Your task to perform on an android device: Search for asus zenbook on newegg.com, select the first entry, add it to the cart, then select checkout. Image 0: 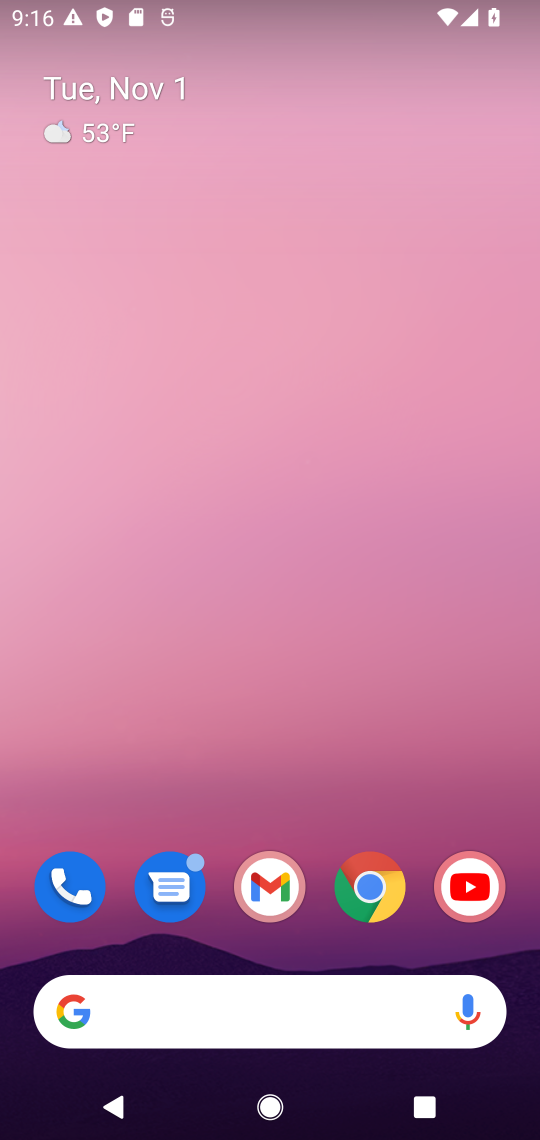
Step 0: click (346, 388)
Your task to perform on an android device: Search for asus zenbook on newegg.com, select the first entry, add it to the cart, then select checkout. Image 1: 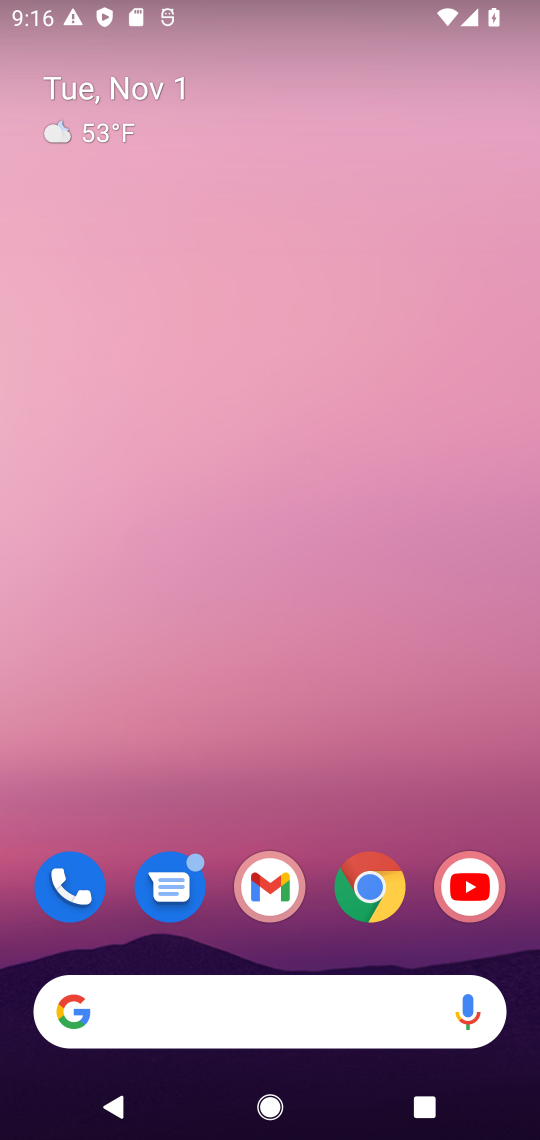
Step 1: drag from (130, 967) to (189, 597)
Your task to perform on an android device: Search for asus zenbook on newegg.com, select the first entry, add it to the cart, then select checkout. Image 2: 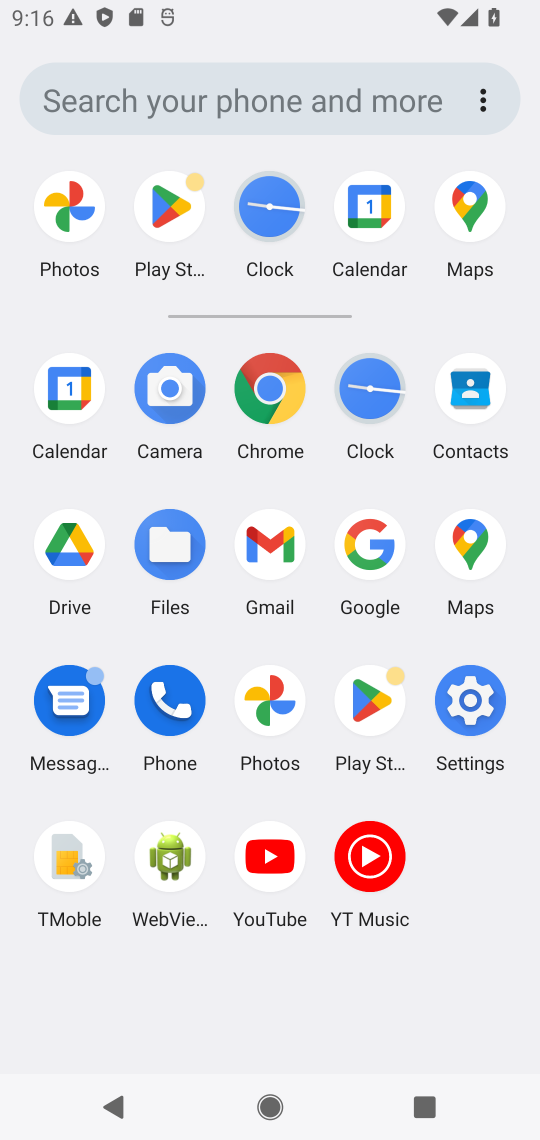
Step 2: click (362, 541)
Your task to perform on an android device: Search for asus zenbook on newegg.com, select the first entry, add it to the cart, then select checkout. Image 3: 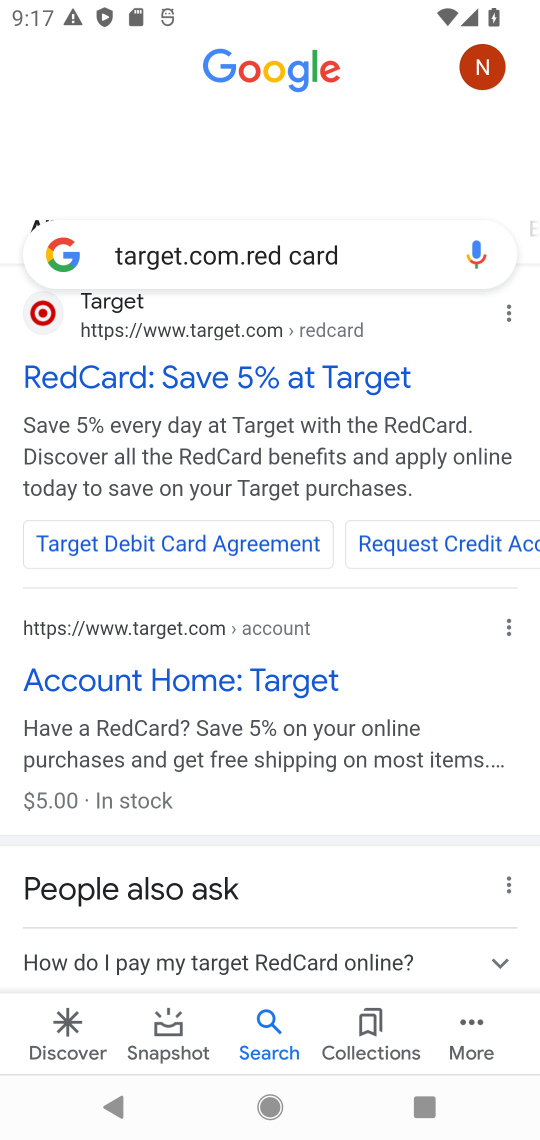
Step 3: click (216, 240)
Your task to perform on an android device: Search for asus zenbook on newegg.com, select the first entry, add it to the cart, then select checkout. Image 4: 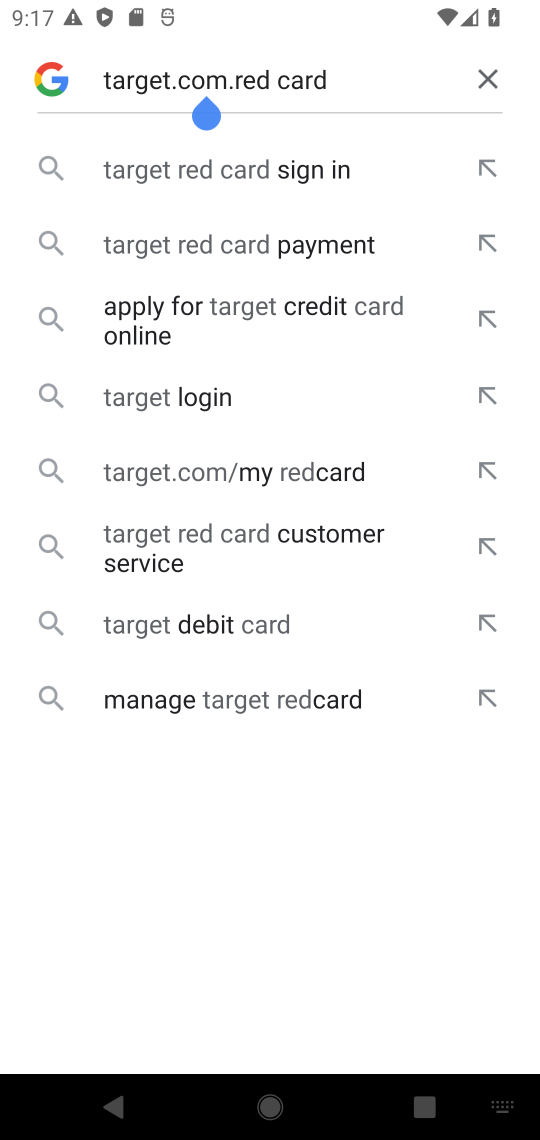
Step 4: click (472, 81)
Your task to perform on an android device: Search for asus zenbook on newegg.com, select the first entry, add it to the cart, then select checkout. Image 5: 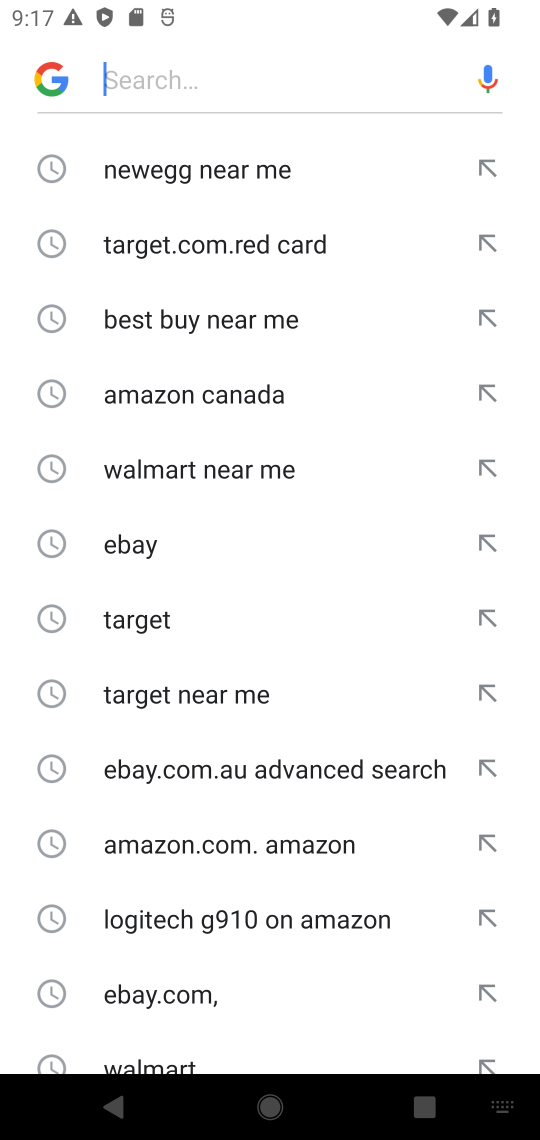
Step 5: click (166, 167)
Your task to perform on an android device: Search for asus zenbook on newegg.com, select the first entry, add it to the cart, then select checkout. Image 6: 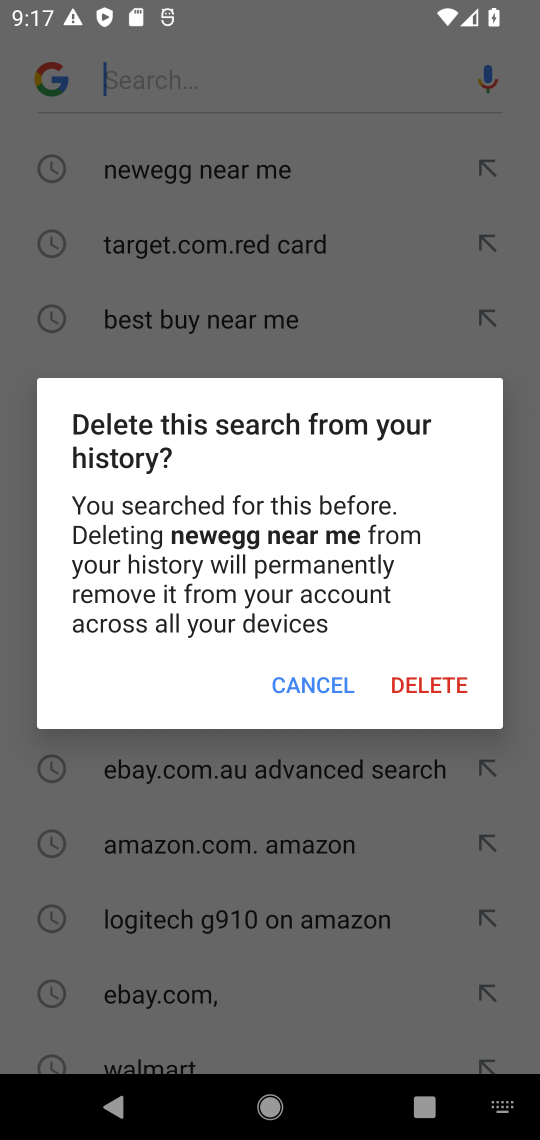
Step 6: click (295, 677)
Your task to perform on an android device: Search for asus zenbook on newegg.com, select the first entry, add it to the cart, then select checkout. Image 7: 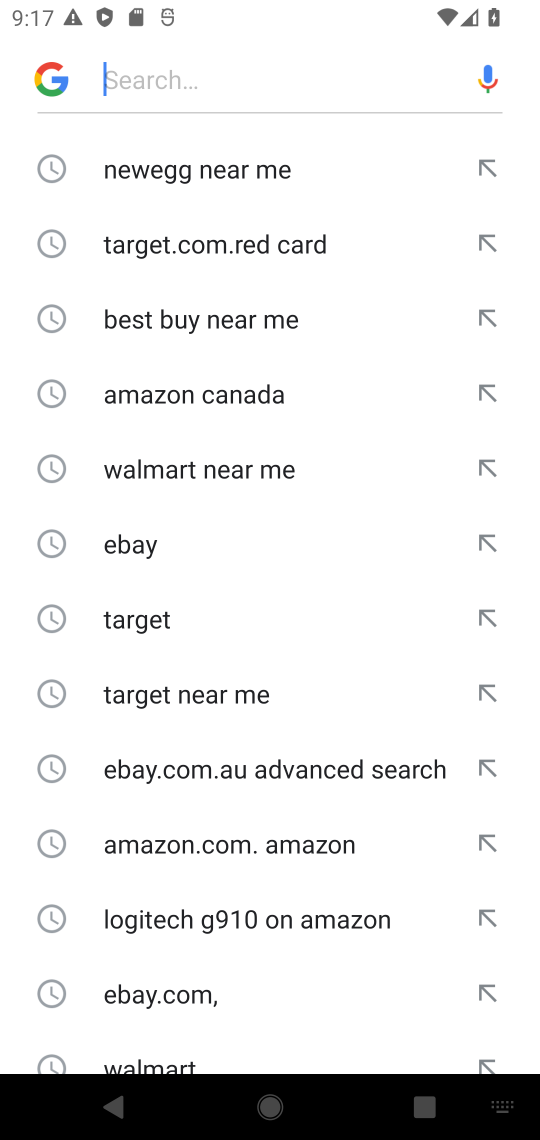
Step 7: click (251, 67)
Your task to perform on an android device: Search for asus zenbook on newegg.com, select the first entry, add it to the cart, then select checkout. Image 8: 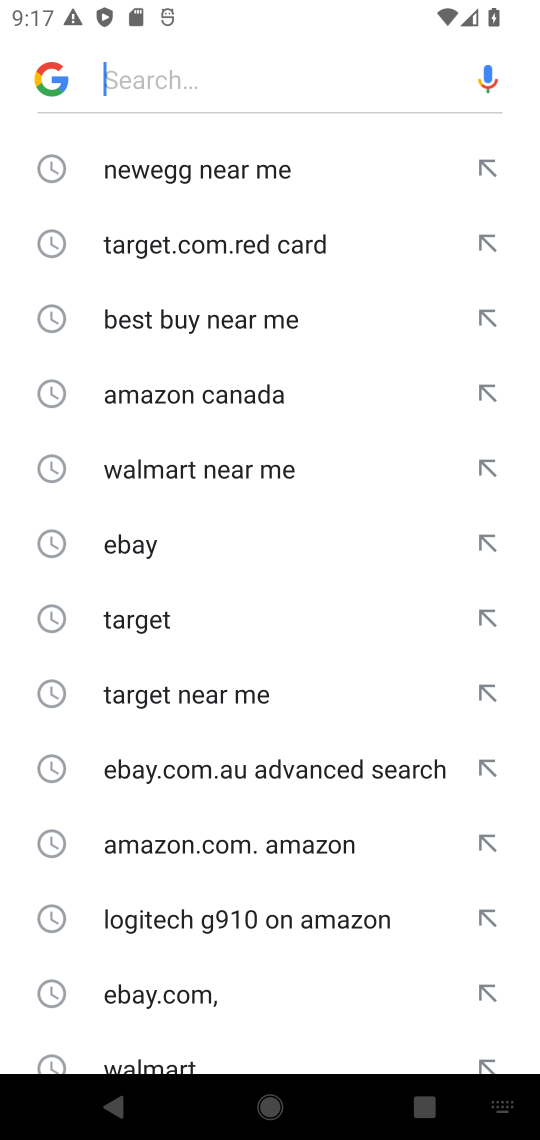
Step 8: type "newegg "
Your task to perform on an android device: Search for asus zenbook on newegg.com, select the first entry, add it to the cart, then select checkout. Image 9: 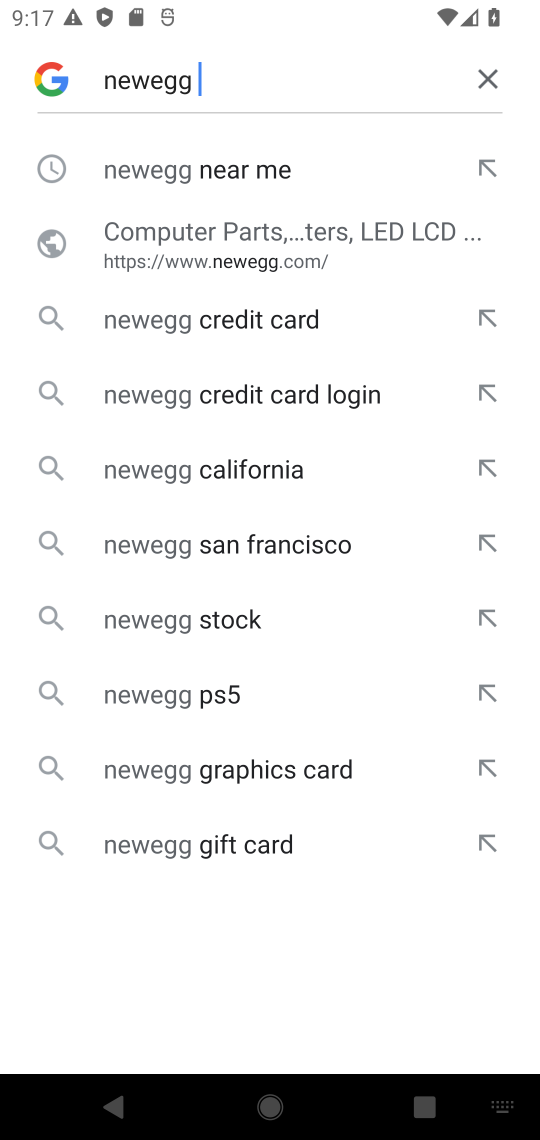
Step 9: click (215, 156)
Your task to perform on an android device: Search for asus zenbook on newegg.com, select the first entry, add it to the cart, then select checkout. Image 10: 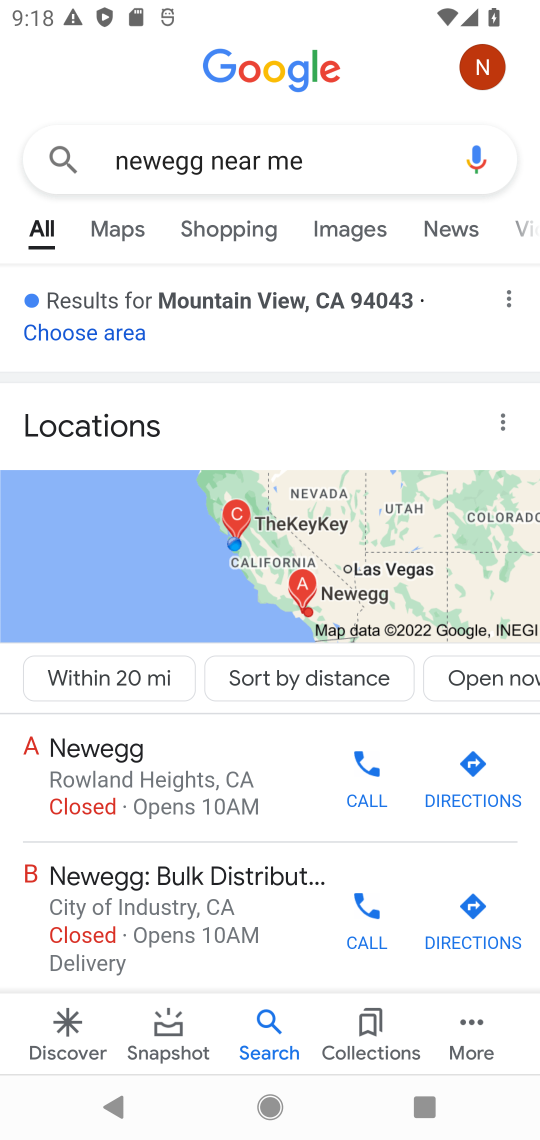
Step 10: drag from (233, 910) to (393, 147)
Your task to perform on an android device: Search for asus zenbook on newegg.com, select the first entry, add it to the cart, then select checkout. Image 11: 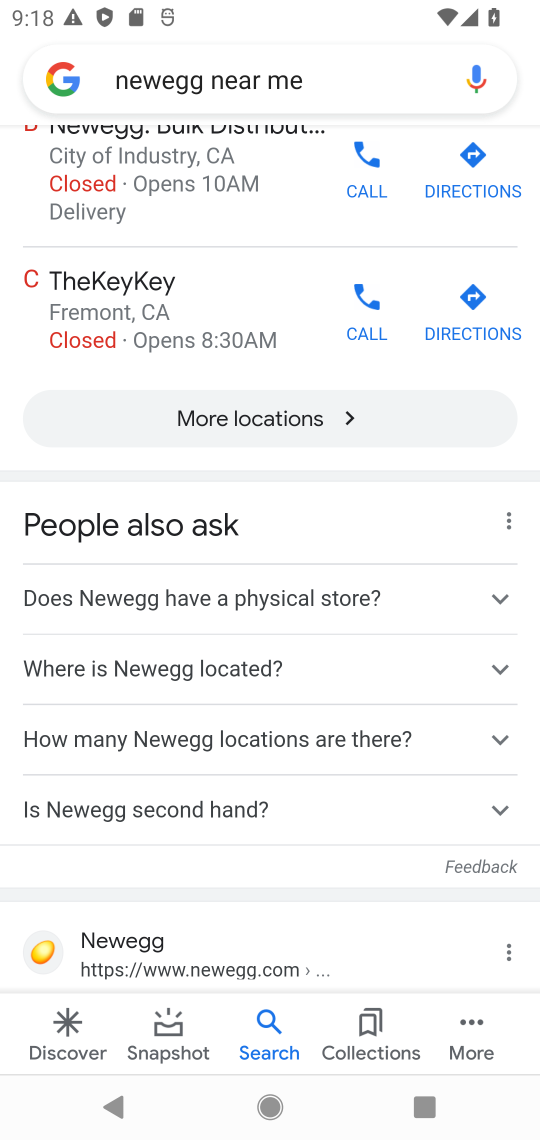
Step 11: drag from (206, 845) to (306, 369)
Your task to perform on an android device: Search for asus zenbook on newegg.com, select the first entry, add it to the cart, then select checkout. Image 12: 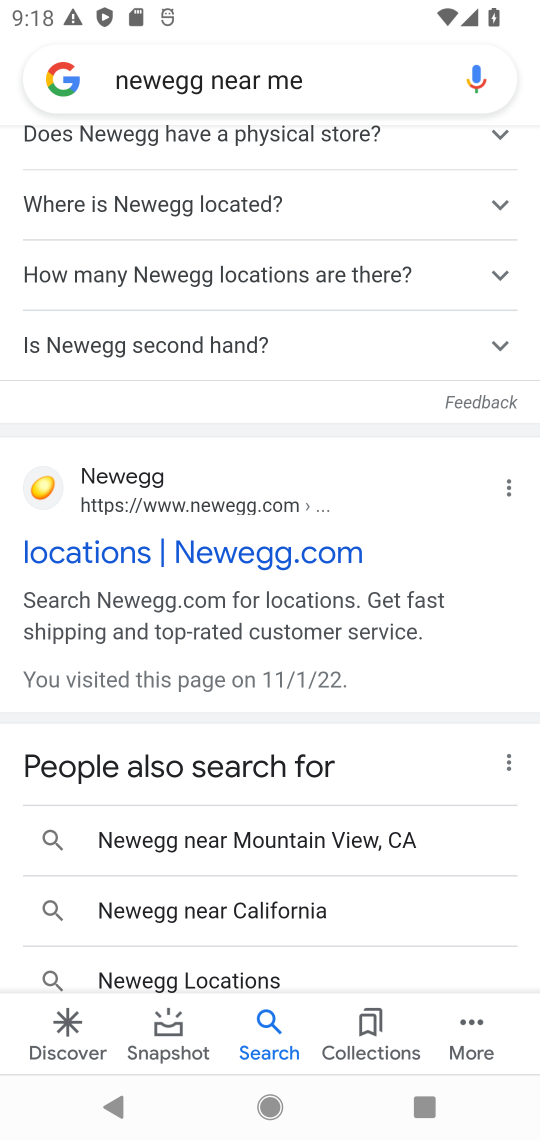
Step 12: click (41, 480)
Your task to perform on an android device: Search for asus zenbook on newegg.com, select the first entry, add it to the cart, then select checkout. Image 13: 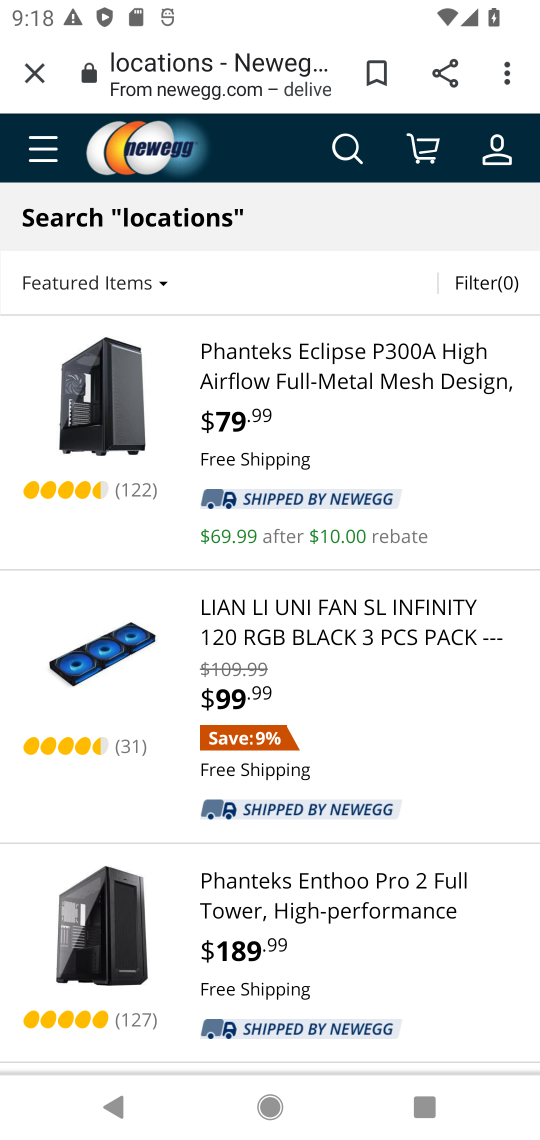
Step 13: click (347, 156)
Your task to perform on an android device: Search for asus zenbook on newegg.com, select the first entry, add it to the cart, then select checkout. Image 14: 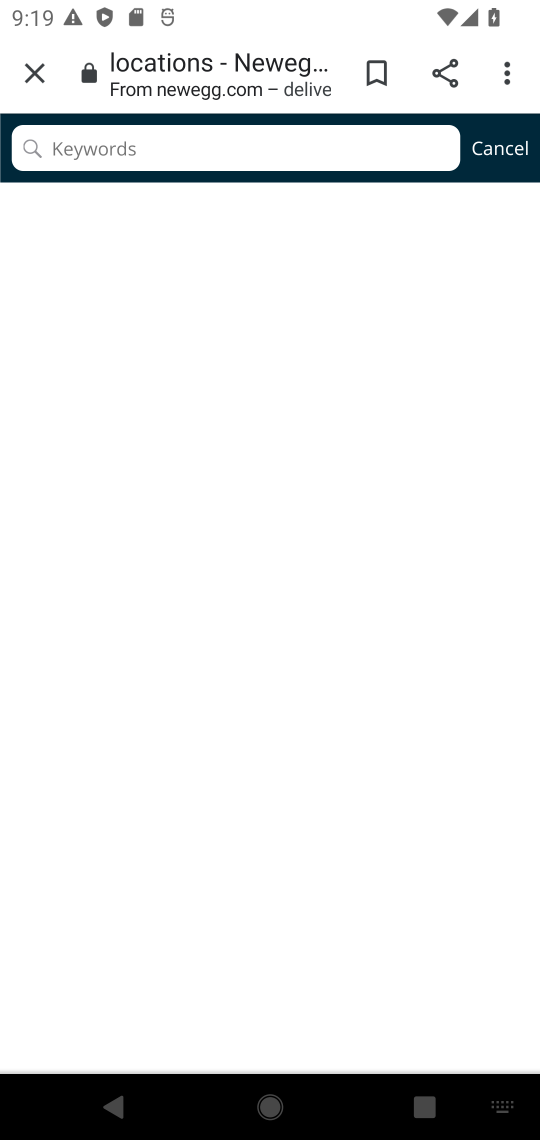
Step 14: click (325, 136)
Your task to perform on an android device: Search for asus zenbook on newegg.com, select the first entry, add it to the cart, then select checkout. Image 15: 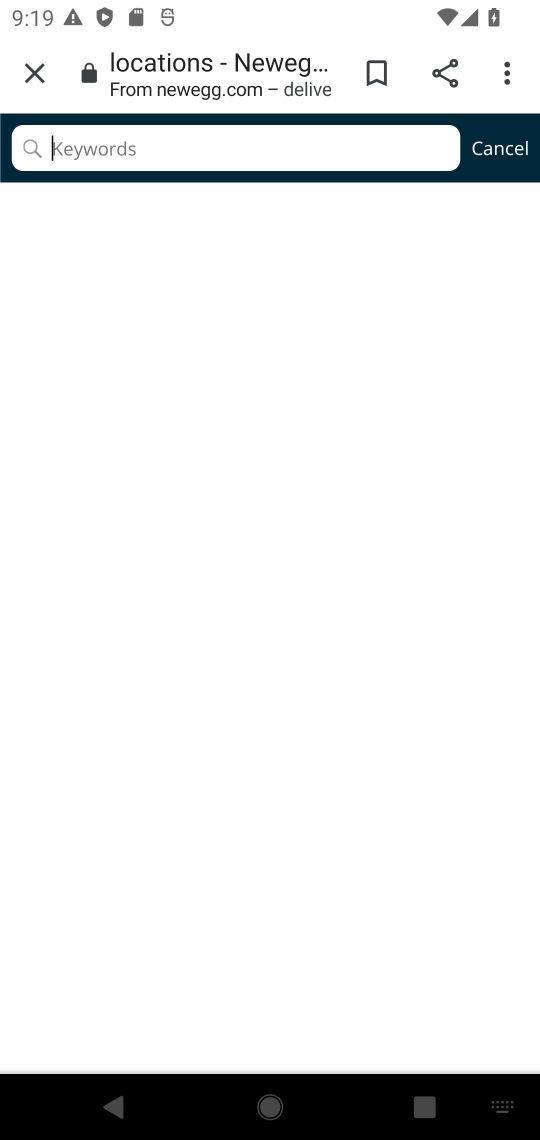
Step 15: type "asus zenbook "
Your task to perform on an android device: Search for asus zenbook on newegg.com, select the first entry, add it to the cart, then select checkout. Image 16: 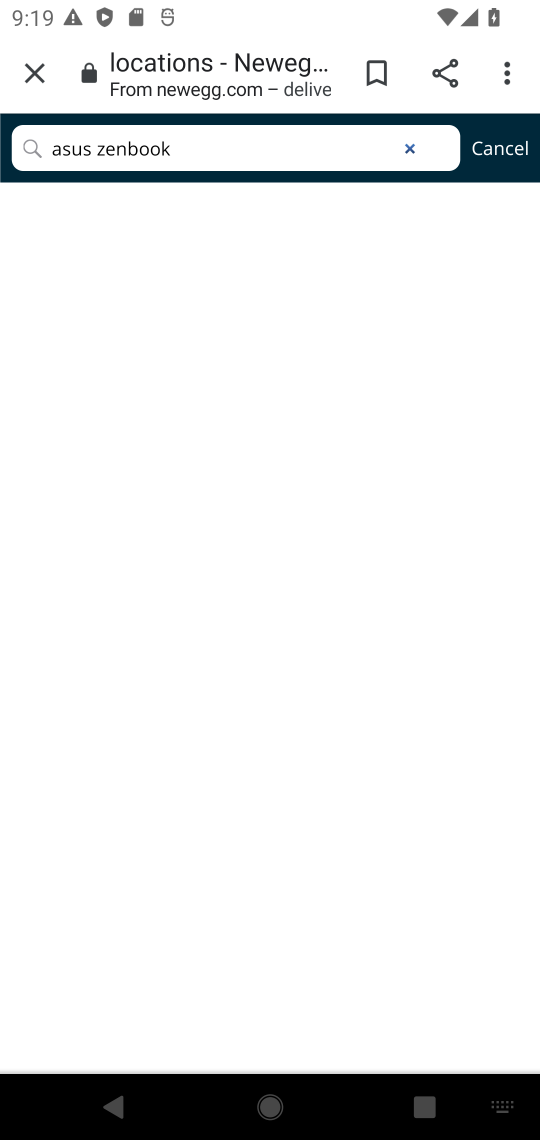
Step 16: click (493, 155)
Your task to perform on an android device: Search for asus zenbook on newegg.com, select the first entry, add it to the cart, then select checkout. Image 17: 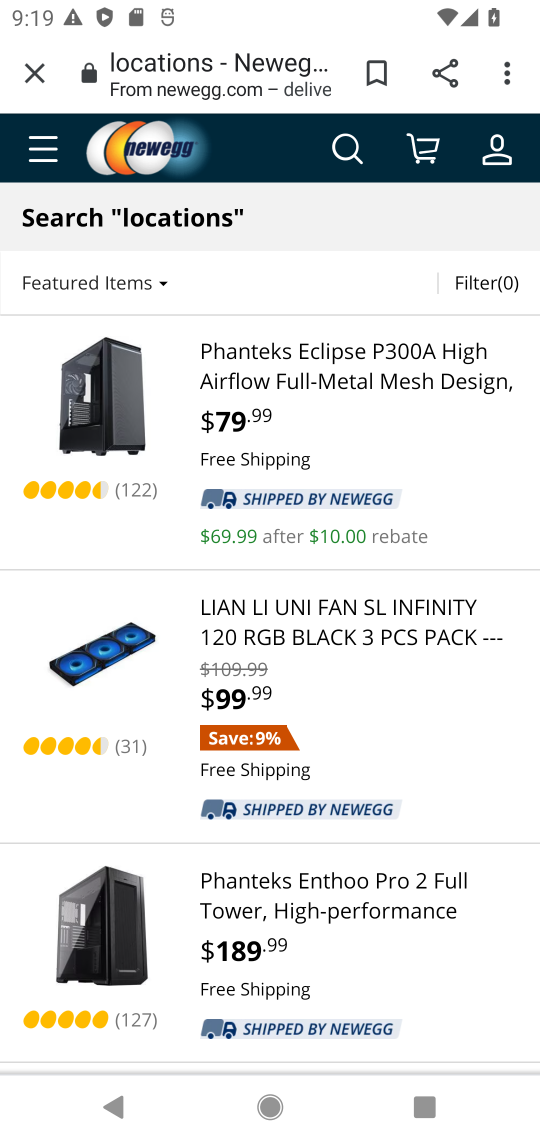
Step 17: click (353, 135)
Your task to perform on an android device: Search for asus zenbook on newegg.com, select the first entry, add it to the cart, then select checkout. Image 18: 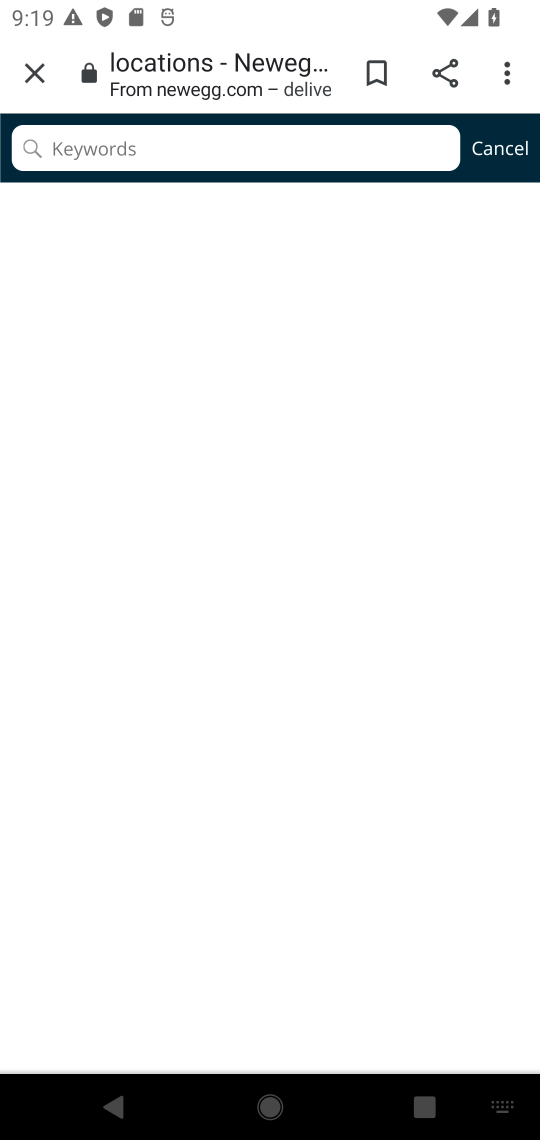
Step 18: click (223, 136)
Your task to perform on an android device: Search for asus zenbook on newegg.com, select the first entry, add it to the cart, then select checkout. Image 19: 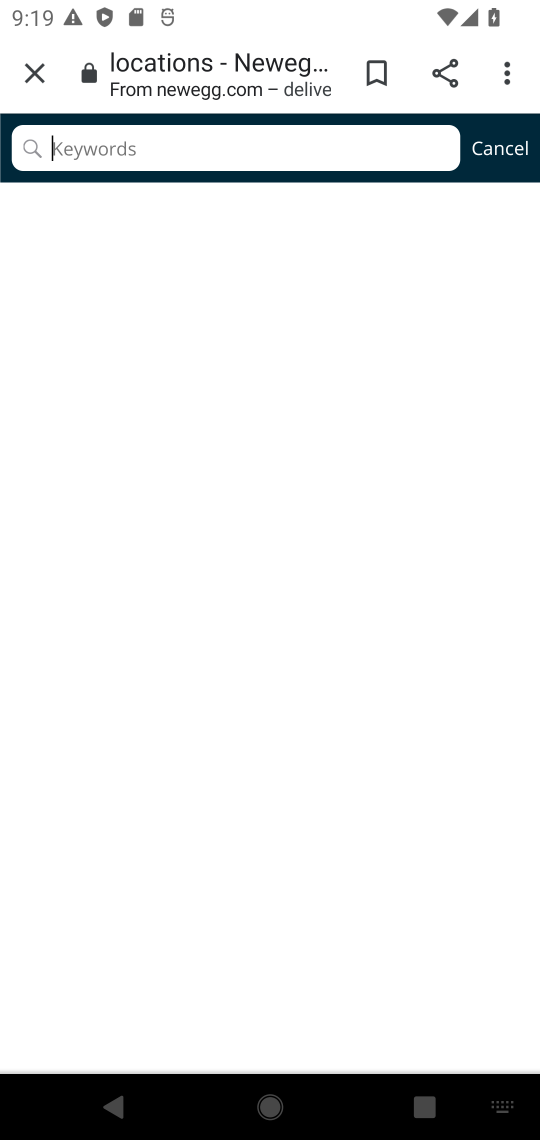
Step 19: type "asus zenbook "
Your task to perform on an android device: Search for asus zenbook on newegg.com, select the first entry, add it to the cart, then select checkout. Image 20: 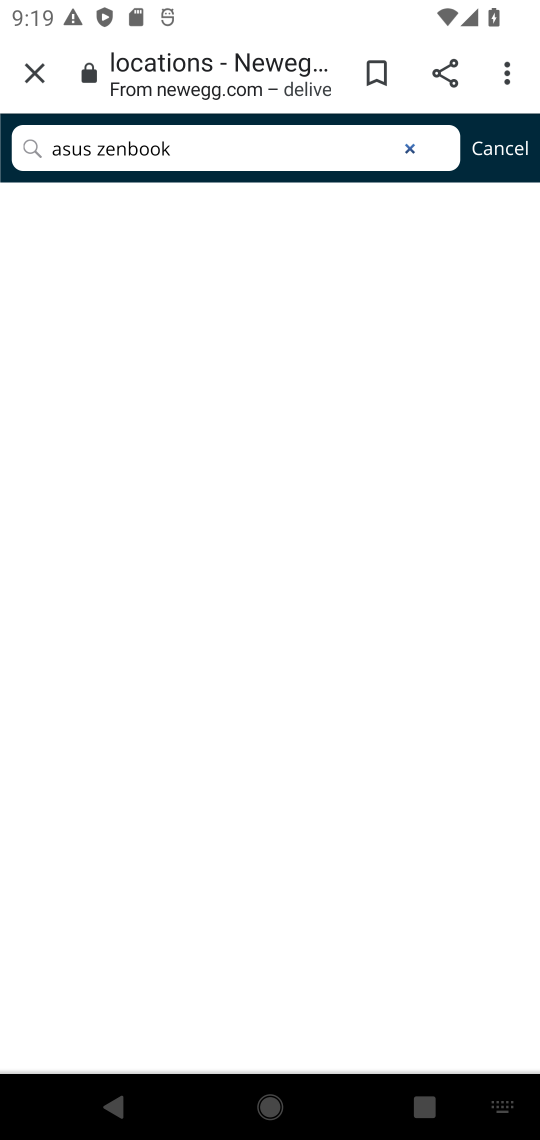
Step 20: task complete